Your task to perform on an android device: Is it going to rain tomorrow? Image 0: 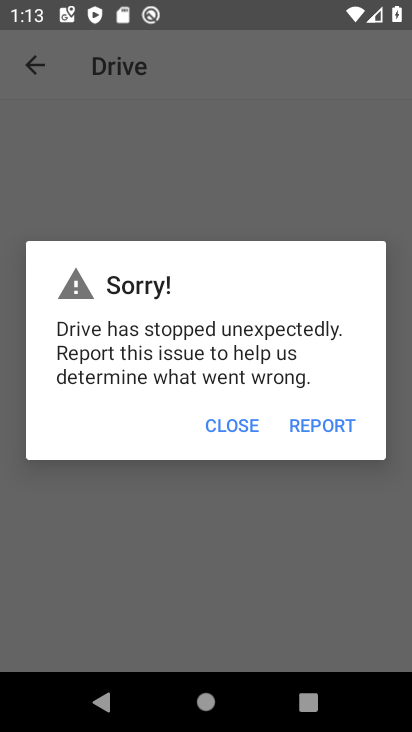
Step 0: press back button
Your task to perform on an android device: Is it going to rain tomorrow? Image 1: 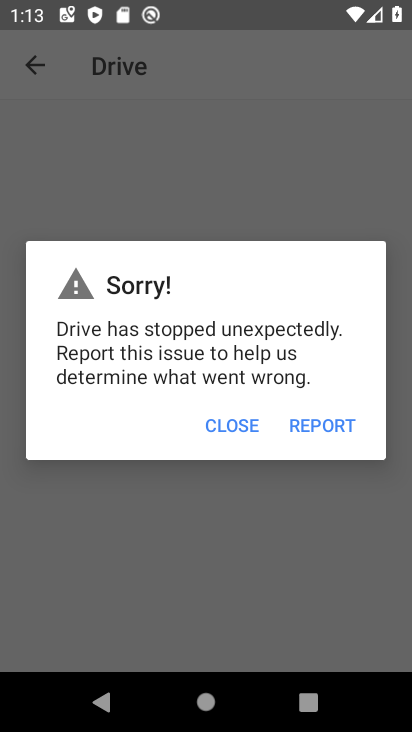
Step 1: press home button
Your task to perform on an android device: Is it going to rain tomorrow? Image 2: 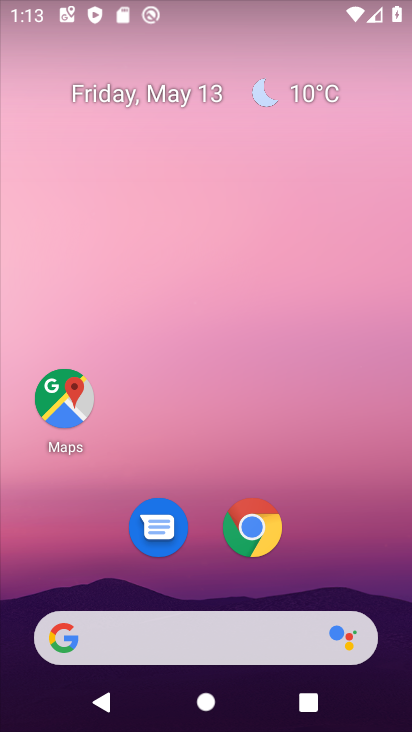
Step 2: click (305, 96)
Your task to perform on an android device: Is it going to rain tomorrow? Image 3: 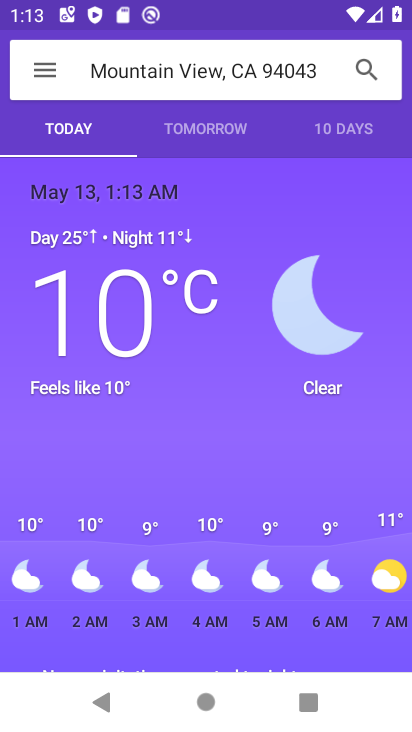
Step 3: click (225, 131)
Your task to perform on an android device: Is it going to rain tomorrow? Image 4: 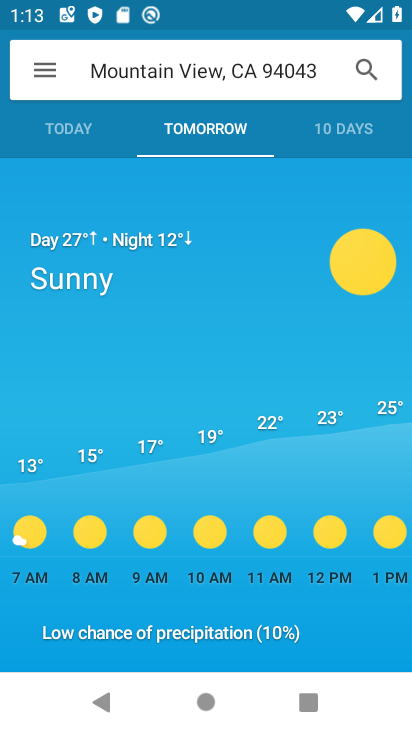
Step 4: task complete